Your task to perform on an android device: turn off airplane mode Image 0: 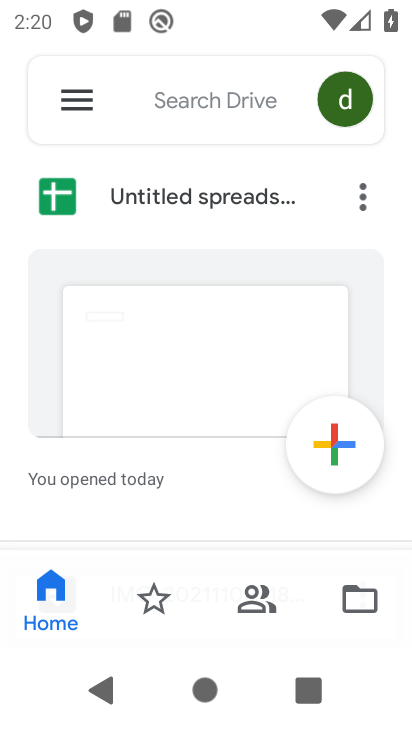
Step 0: press back button
Your task to perform on an android device: turn off airplane mode Image 1: 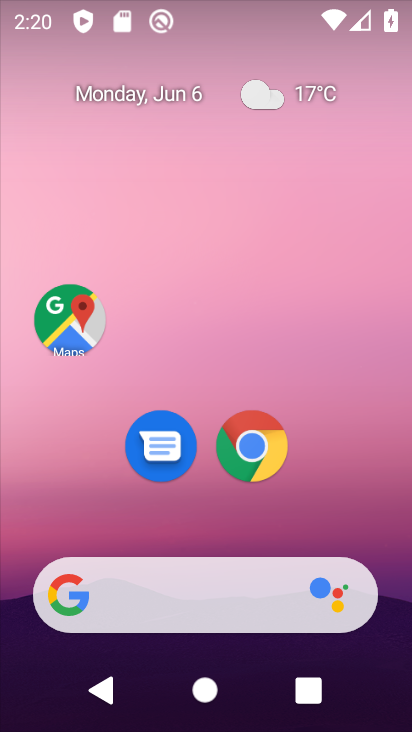
Step 1: task complete